Your task to perform on an android device: Go to Google maps Image 0: 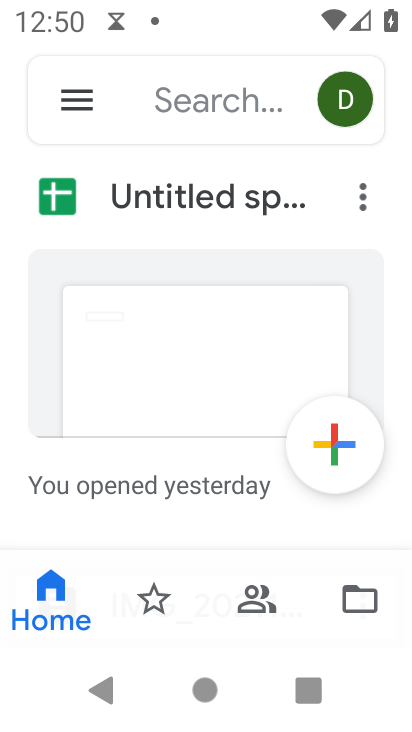
Step 0: press home button
Your task to perform on an android device: Go to Google maps Image 1: 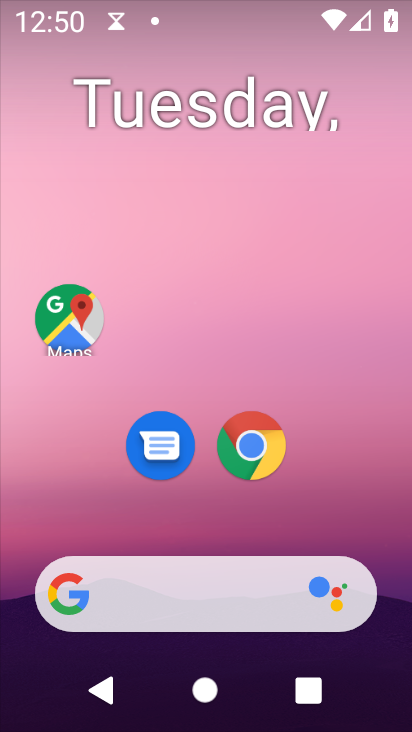
Step 1: drag from (303, 590) to (319, 8)
Your task to perform on an android device: Go to Google maps Image 2: 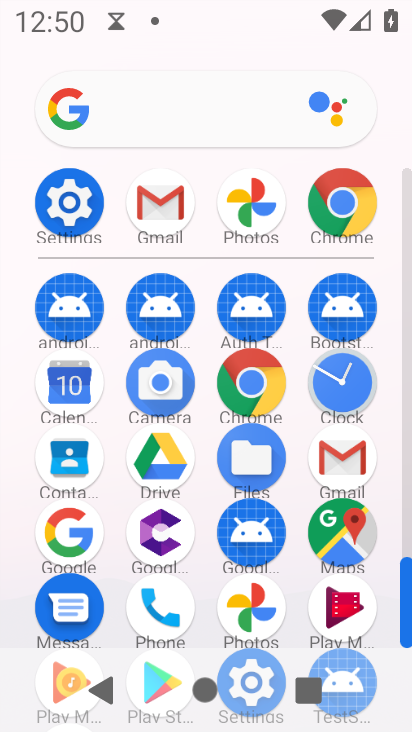
Step 2: click (349, 545)
Your task to perform on an android device: Go to Google maps Image 3: 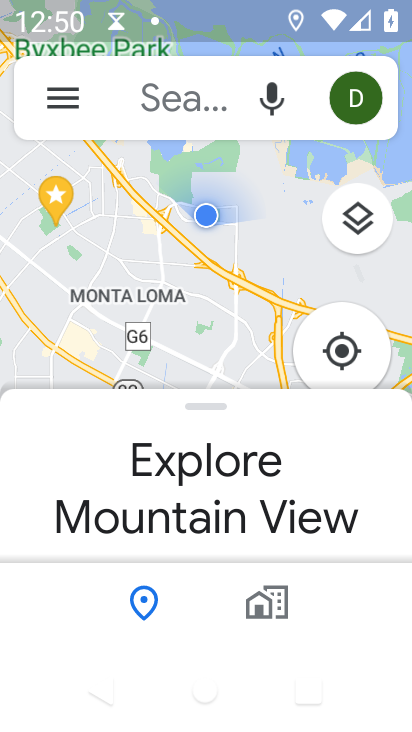
Step 3: task complete